Your task to perform on an android device: open the mobile data screen to see how much data has been used Image 0: 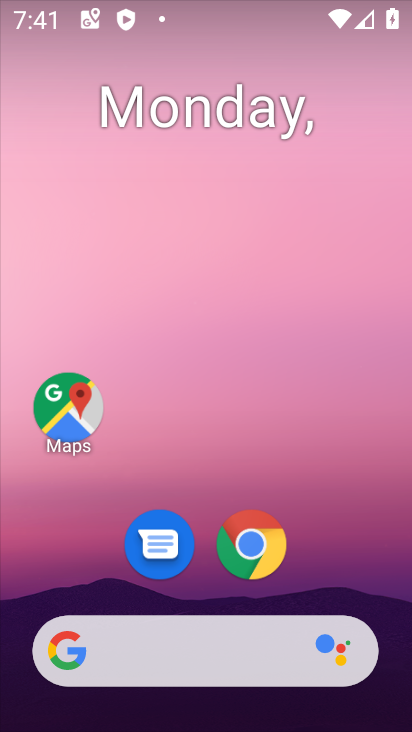
Step 0: drag from (323, 507) to (211, 18)
Your task to perform on an android device: open the mobile data screen to see how much data has been used Image 1: 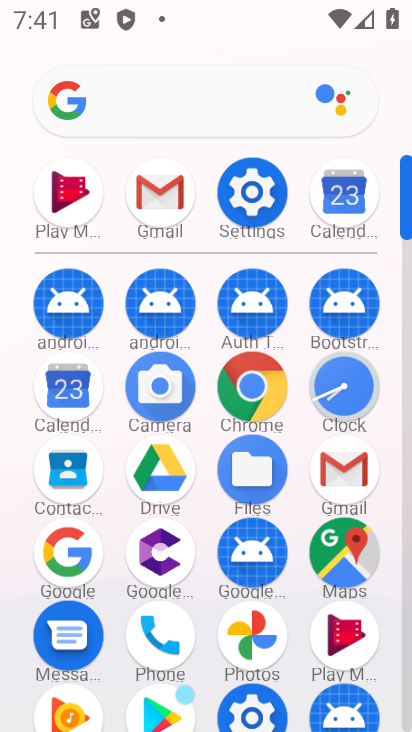
Step 1: click (245, 196)
Your task to perform on an android device: open the mobile data screen to see how much data has been used Image 2: 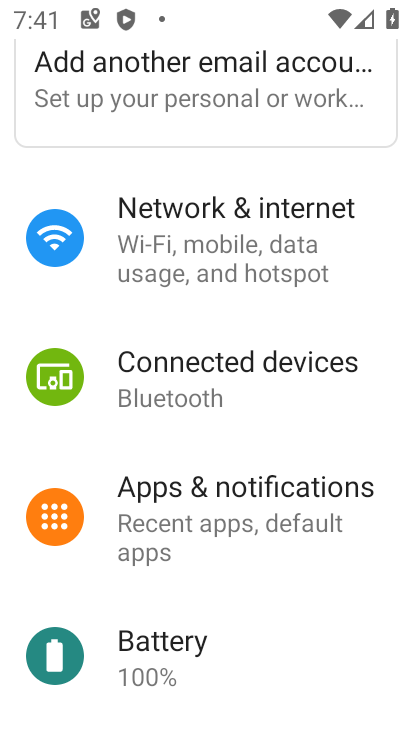
Step 2: click (202, 212)
Your task to perform on an android device: open the mobile data screen to see how much data has been used Image 3: 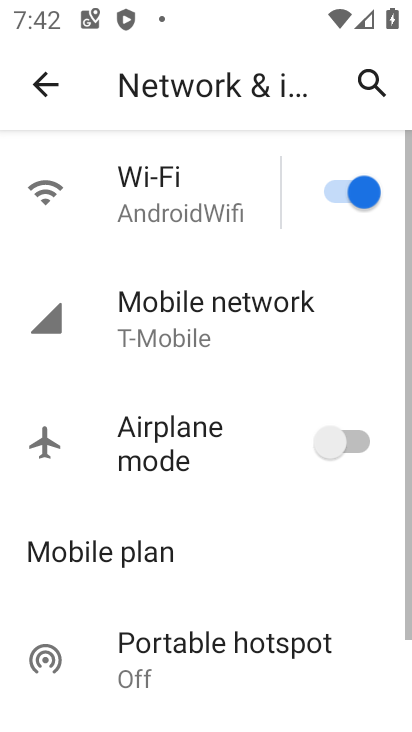
Step 3: click (185, 309)
Your task to perform on an android device: open the mobile data screen to see how much data has been used Image 4: 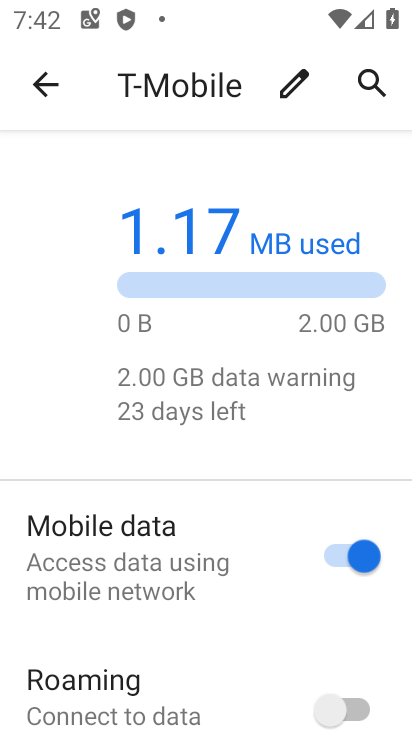
Step 4: task complete